Your task to perform on an android device: check android version Image 0: 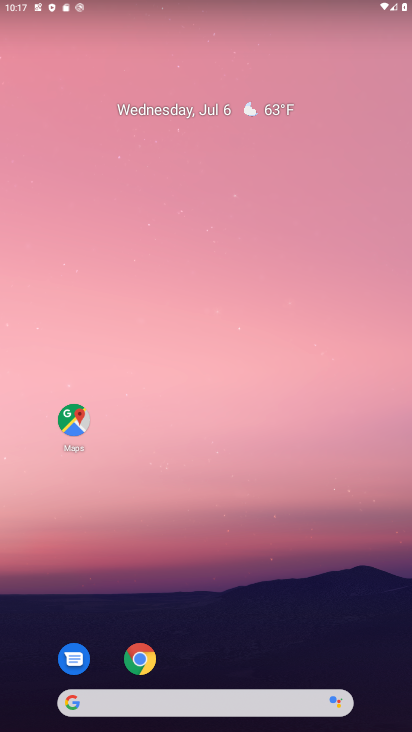
Step 0: drag from (172, 652) to (225, 207)
Your task to perform on an android device: check android version Image 1: 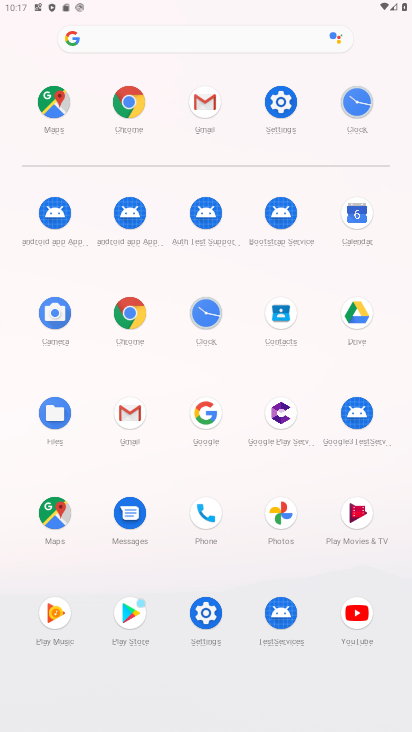
Step 1: click (275, 105)
Your task to perform on an android device: check android version Image 2: 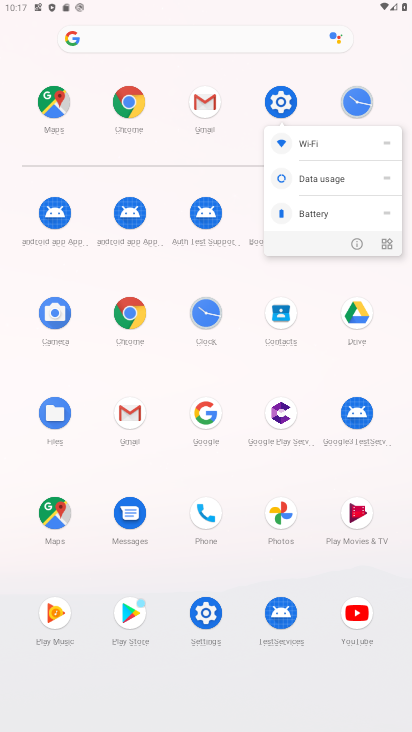
Step 2: click (362, 243)
Your task to perform on an android device: check android version Image 3: 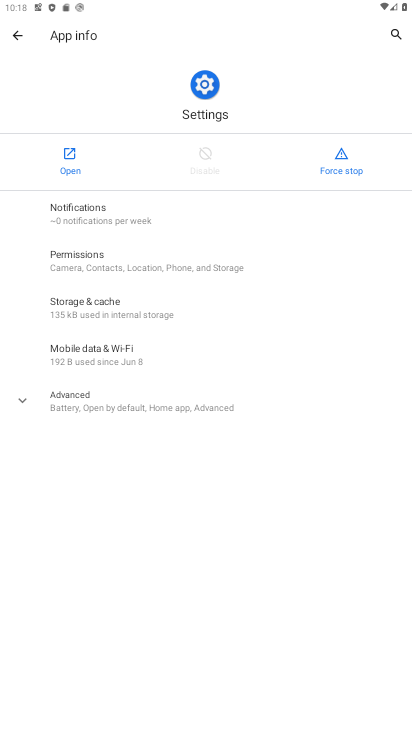
Step 3: click (55, 165)
Your task to perform on an android device: check android version Image 4: 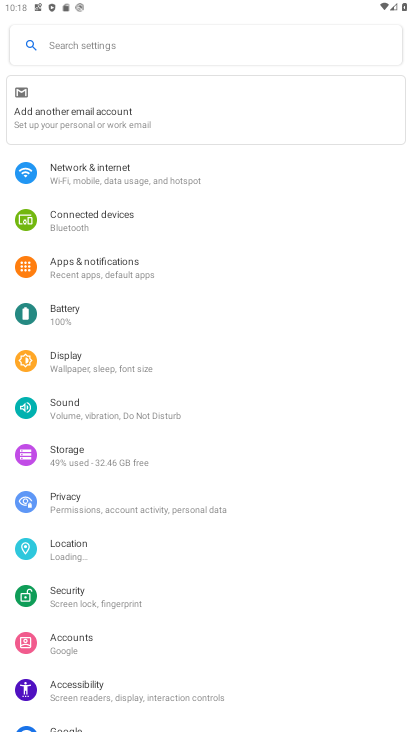
Step 4: drag from (158, 509) to (213, 212)
Your task to perform on an android device: check android version Image 5: 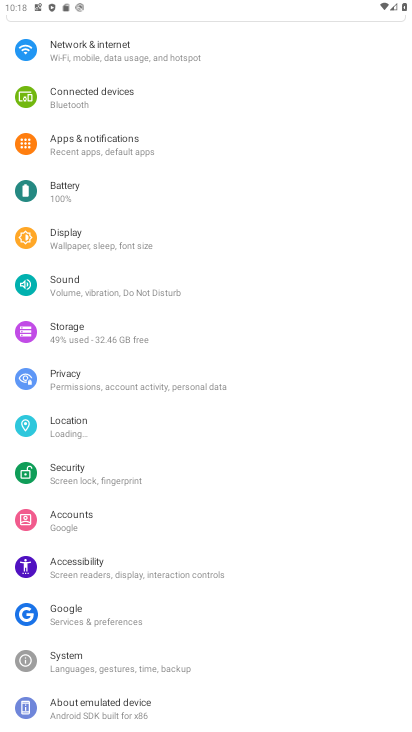
Step 5: click (115, 704)
Your task to perform on an android device: check android version Image 6: 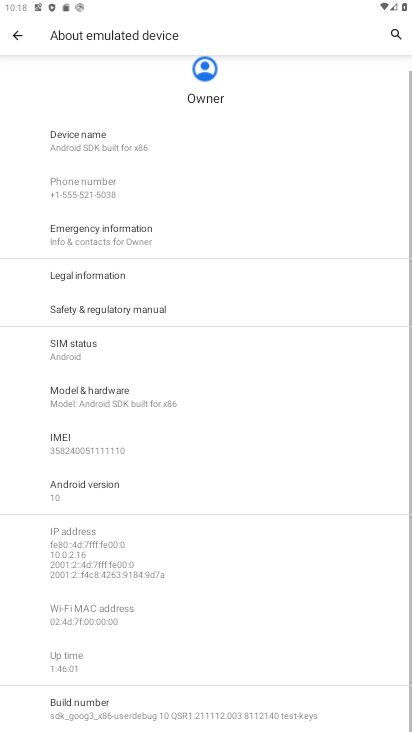
Step 6: drag from (166, 561) to (246, 210)
Your task to perform on an android device: check android version Image 7: 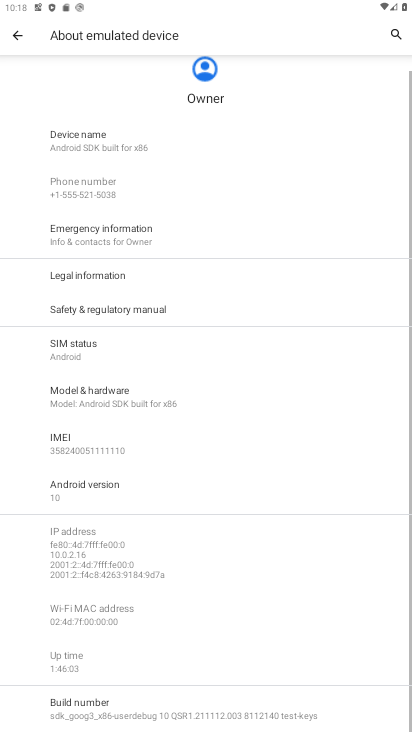
Step 7: click (136, 495)
Your task to perform on an android device: check android version Image 8: 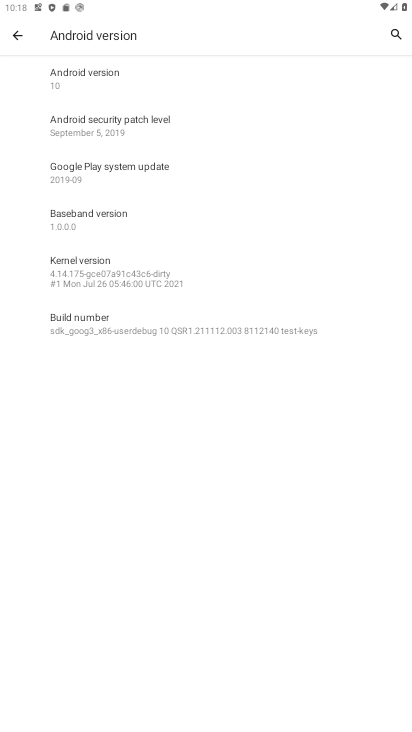
Step 8: drag from (151, 408) to (164, 278)
Your task to perform on an android device: check android version Image 9: 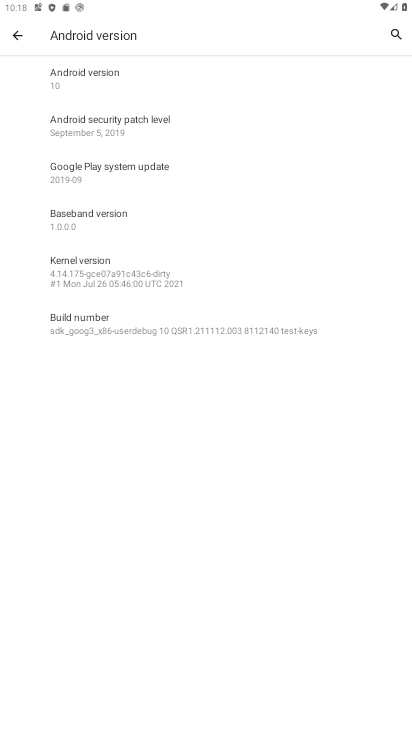
Step 9: click (108, 82)
Your task to perform on an android device: check android version Image 10: 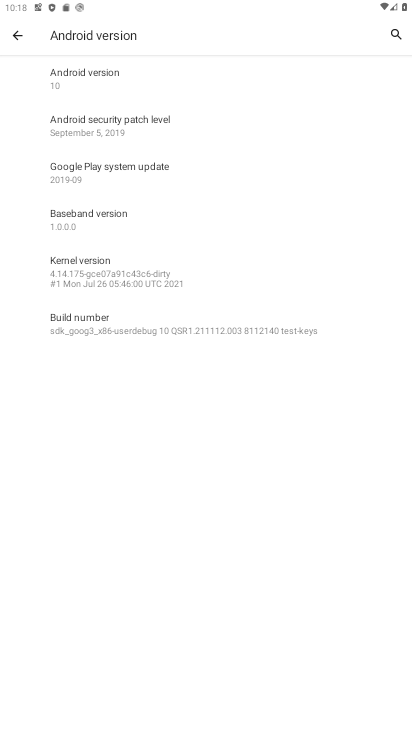
Step 10: click (183, 388)
Your task to perform on an android device: check android version Image 11: 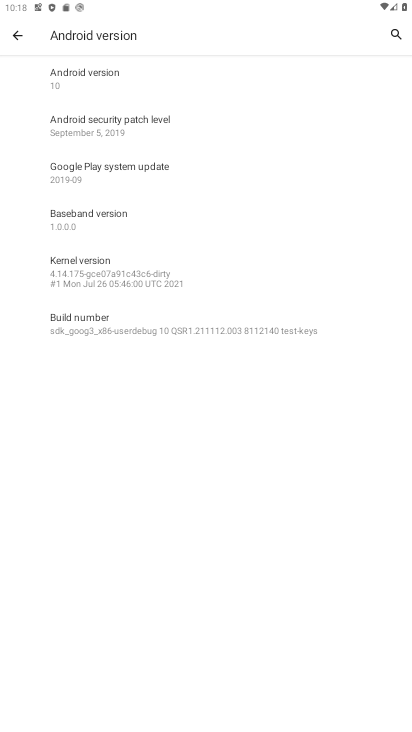
Step 11: click (91, 72)
Your task to perform on an android device: check android version Image 12: 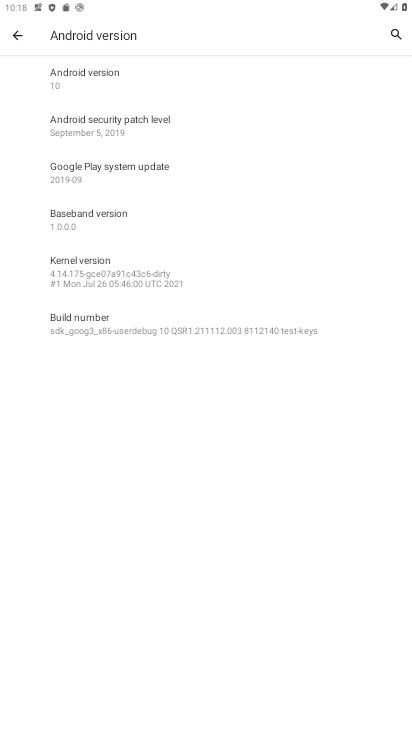
Step 12: task complete